Your task to perform on an android device: visit the assistant section in the google photos Image 0: 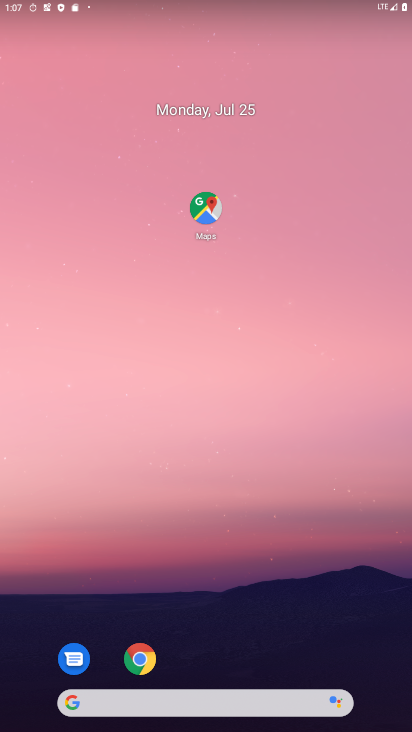
Step 0: drag from (103, 587) to (316, 221)
Your task to perform on an android device: visit the assistant section in the google photos Image 1: 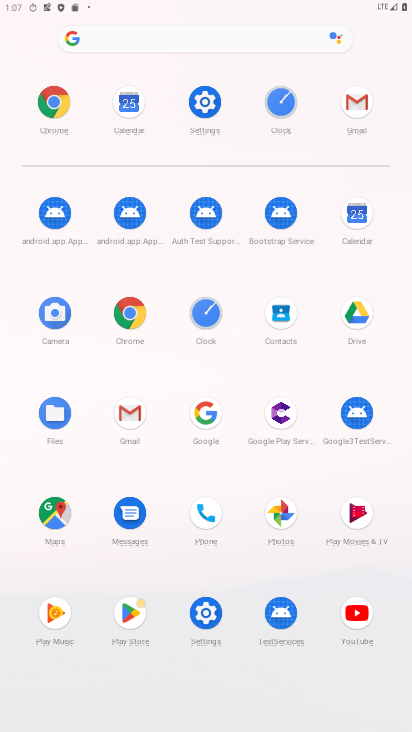
Step 1: click (280, 513)
Your task to perform on an android device: visit the assistant section in the google photos Image 2: 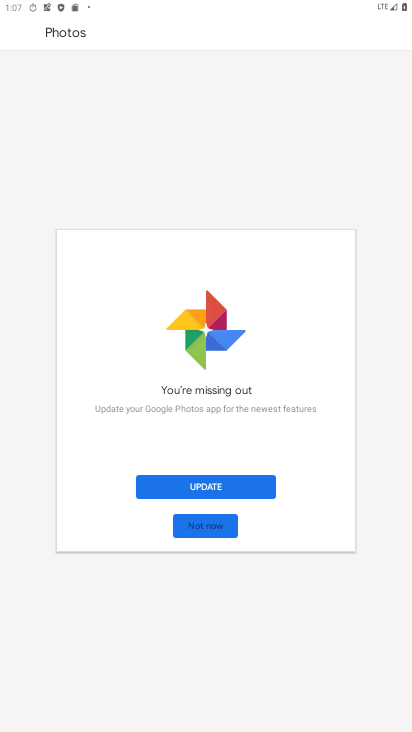
Step 2: click (337, 404)
Your task to perform on an android device: visit the assistant section in the google photos Image 3: 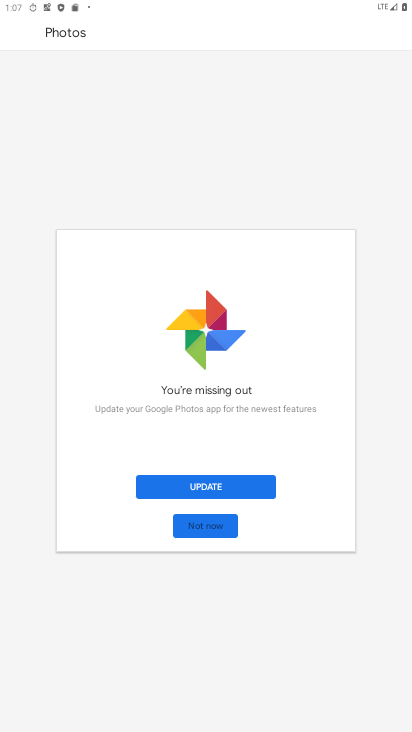
Step 3: click (258, 482)
Your task to perform on an android device: visit the assistant section in the google photos Image 4: 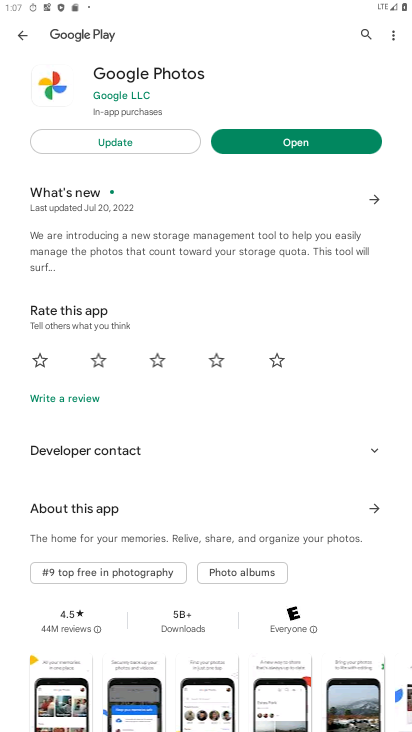
Step 4: click (315, 143)
Your task to perform on an android device: visit the assistant section in the google photos Image 5: 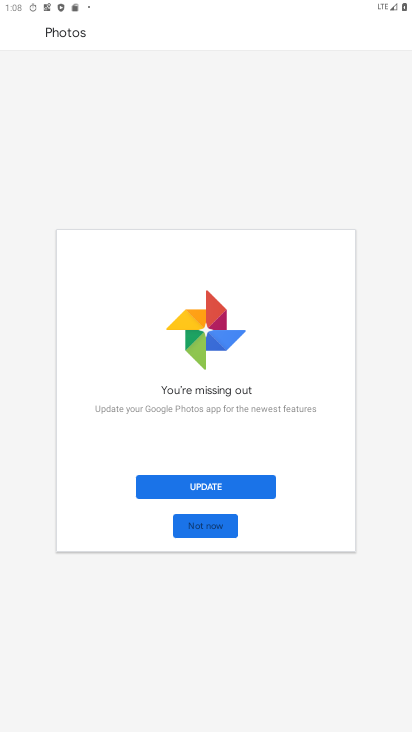
Step 5: task complete